Your task to perform on an android device: check the backup settings in the google photos Image 0: 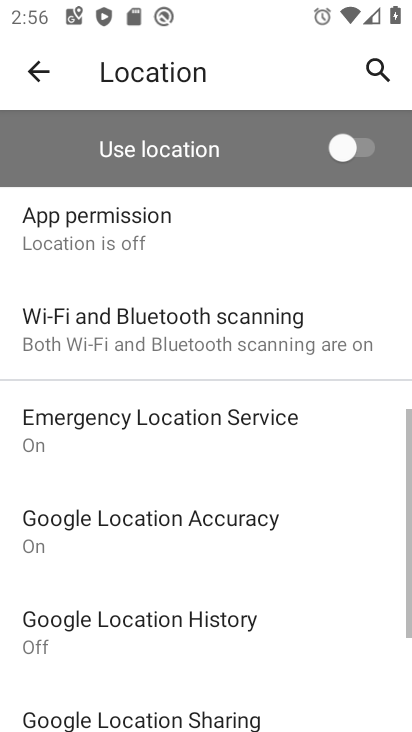
Step 0: press home button
Your task to perform on an android device: check the backup settings in the google photos Image 1: 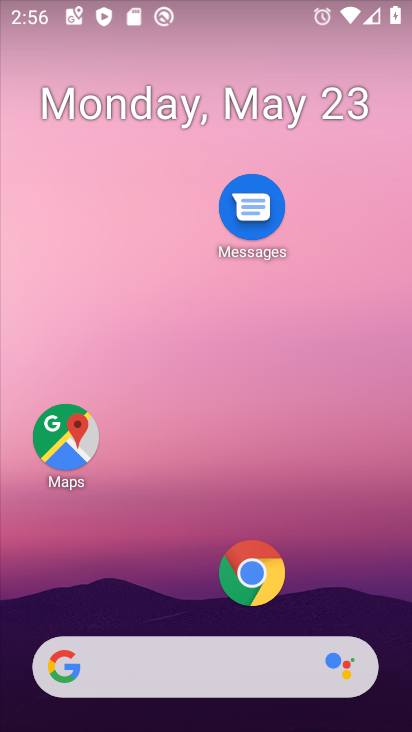
Step 1: drag from (238, 651) to (226, 115)
Your task to perform on an android device: check the backup settings in the google photos Image 2: 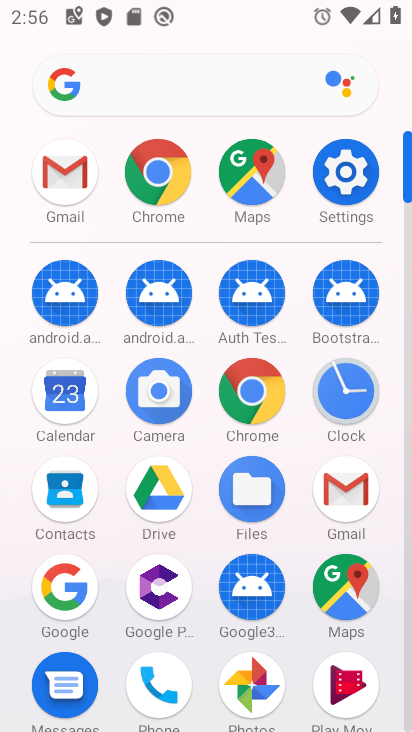
Step 2: drag from (279, 642) to (275, 317)
Your task to perform on an android device: check the backup settings in the google photos Image 3: 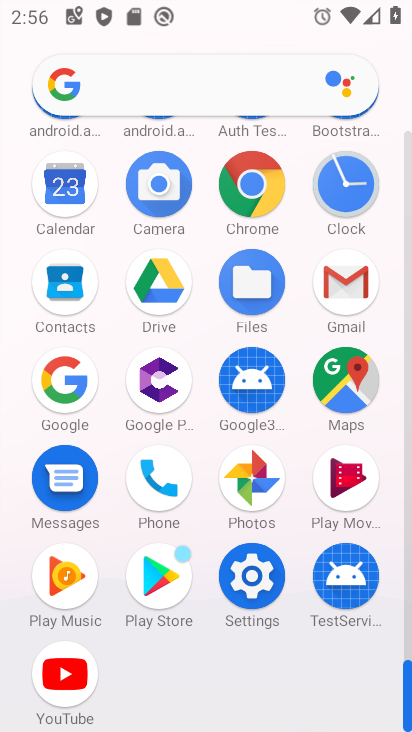
Step 3: click (276, 493)
Your task to perform on an android device: check the backup settings in the google photos Image 4: 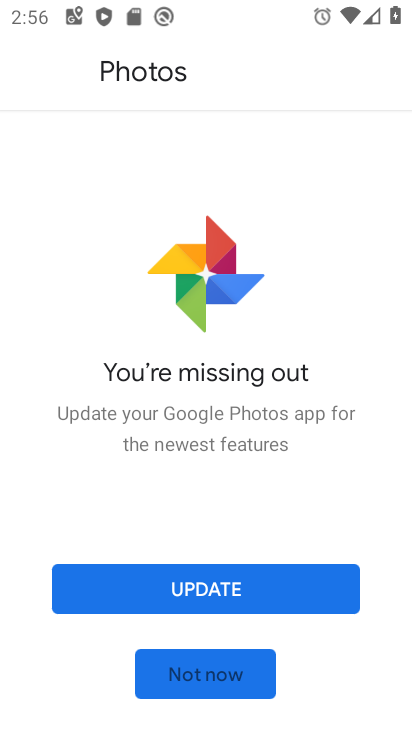
Step 4: click (256, 592)
Your task to perform on an android device: check the backup settings in the google photos Image 5: 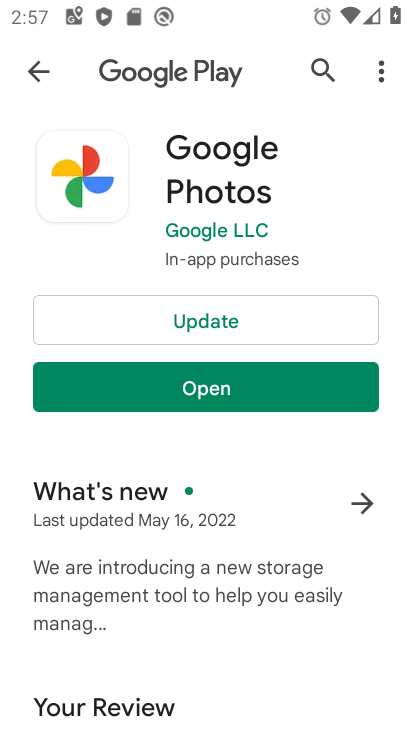
Step 5: click (238, 321)
Your task to perform on an android device: check the backup settings in the google photos Image 6: 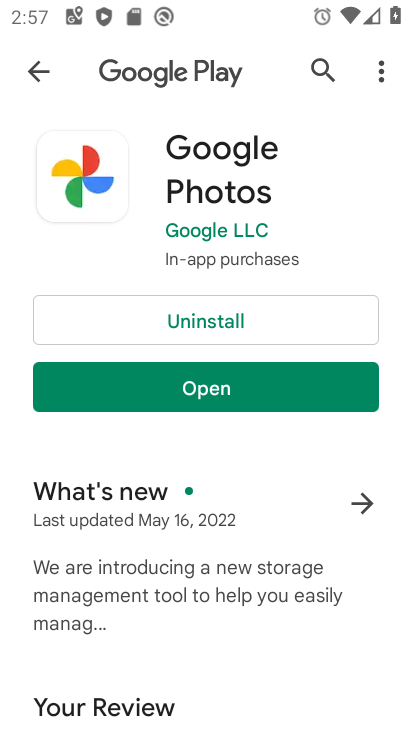
Step 6: click (269, 399)
Your task to perform on an android device: check the backup settings in the google photos Image 7: 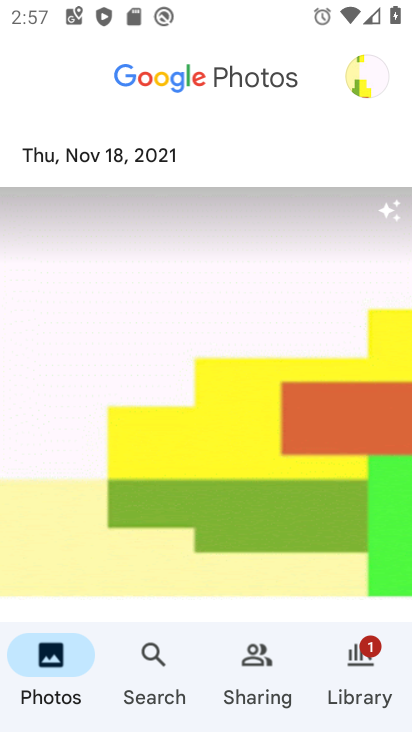
Step 7: click (376, 79)
Your task to perform on an android device: check the backup settings in the google photos Image 8: 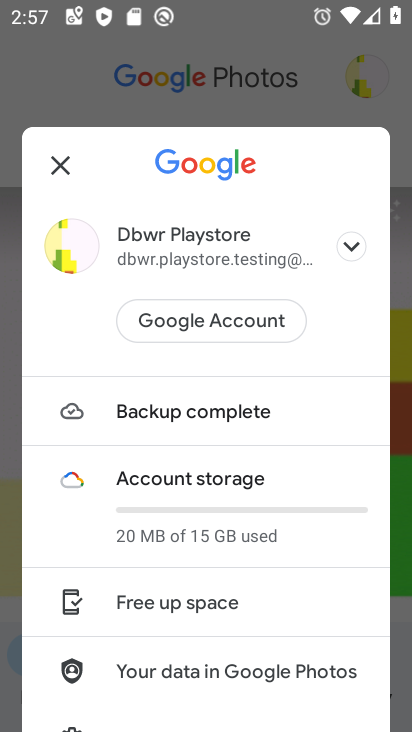
Step 8: drag from (283, 619) to (286, 302)
Your task to perform on an android device: check the backup settings in the google photos Image 9: 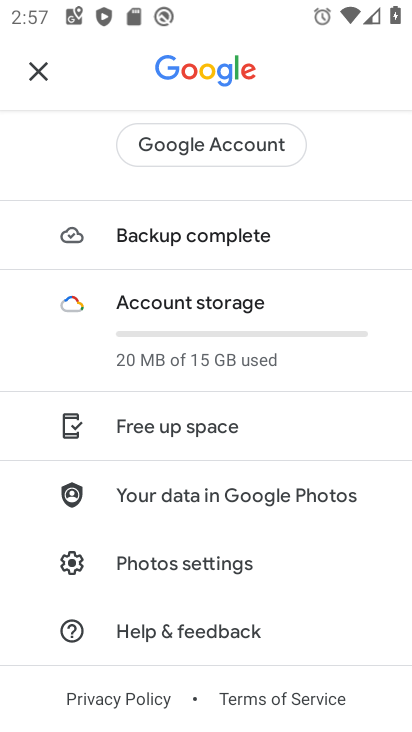
Step 9: click (240, 561)
Your task to perform on an android device: check the backup settings in the google photos Image 10: 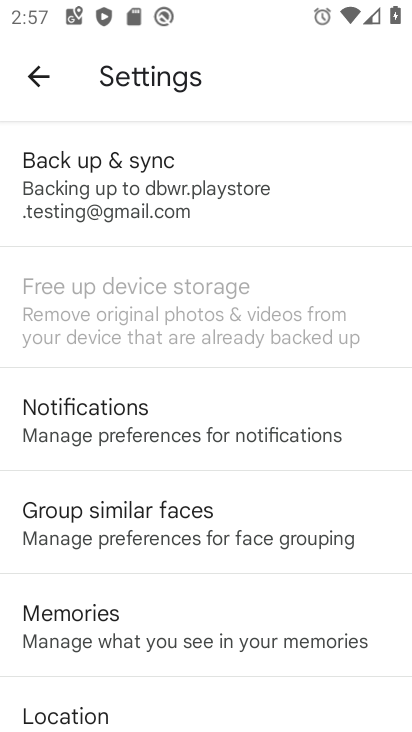
Step 10: click (207, 194)
Your task to perform on an android device: check the backup settings in the google photos Image 11: 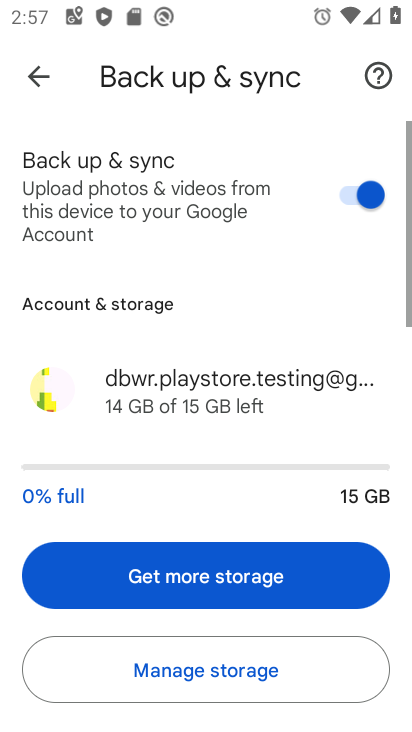
Step 11: task complete